Your task to perform on an android device: Do I have any events today? Image 0: 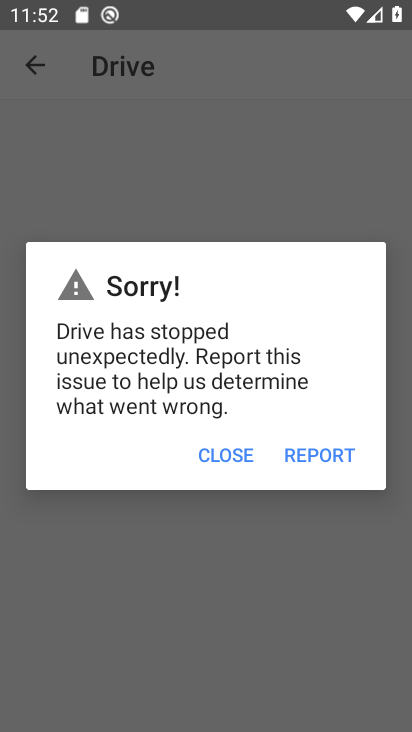
Step 0: press home button
Your task to perform on an android device: Do I have any events today? Image 1: 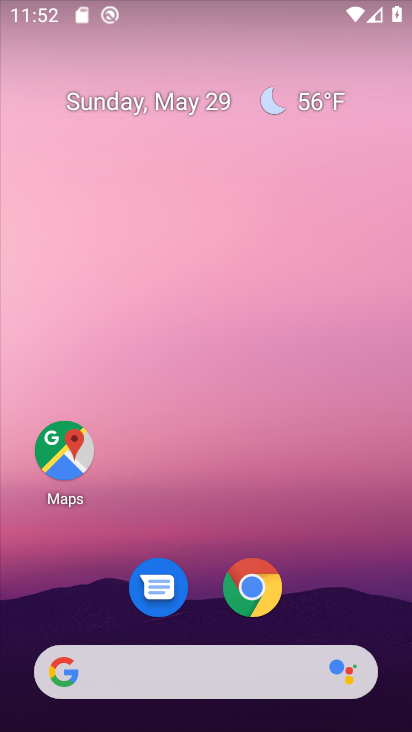
Step 1: drag from (351, 596) to (229, 46)
Your task to perform on an android device: Do I have any events today? Image 2: 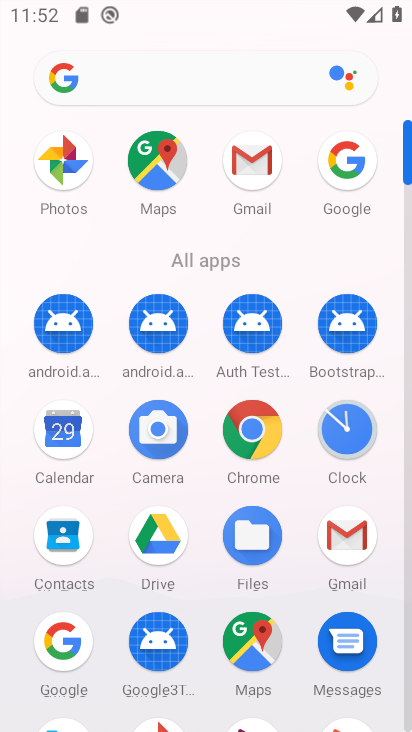
Step 2: click (61, 434)
Your task to perform on an android device: Do I have any events today? Image 3: 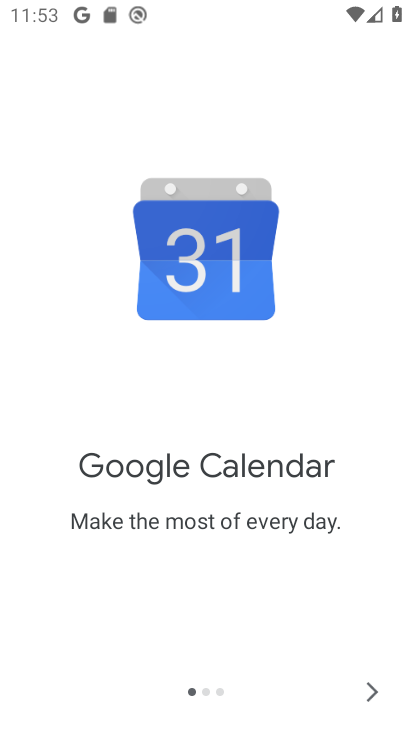
Step 3: click (368, 689)
Your task to perform on an android device: Do I have any events today? Image 4: 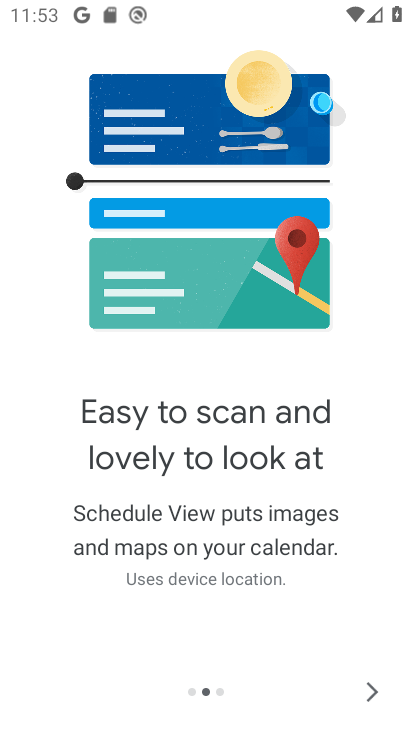
Step 4: click (368, 689)
Your task to perform on an android device: Do I have any events today? Image 5: 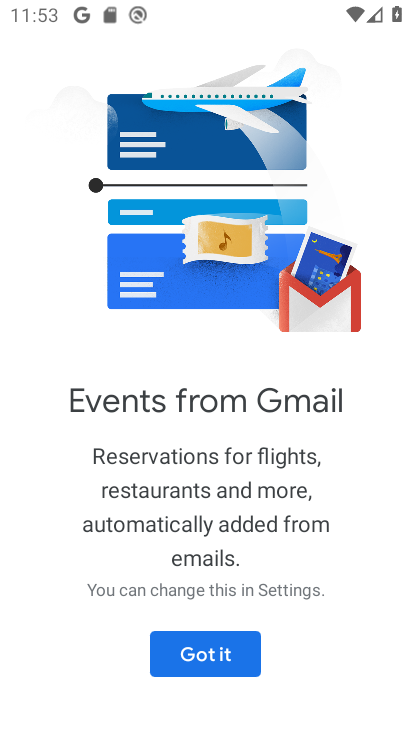
Step 5: click (219, 647)
Your task to perform on an android device: Do I have any events today? Image 6: 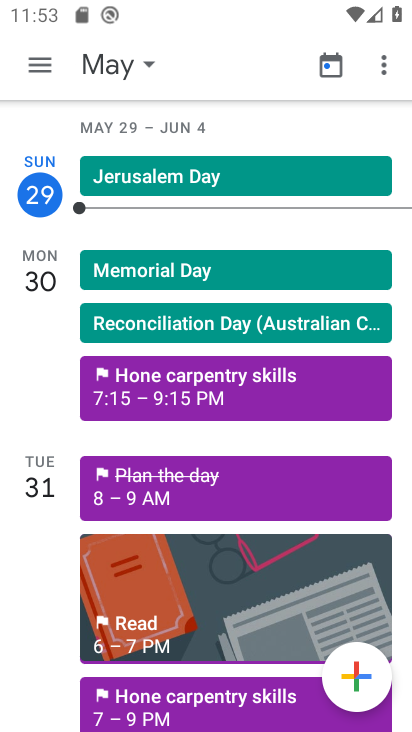
Step 6: task complete